Your task to perform on an android device: toggle notifications settings in the gmail app Image 0: 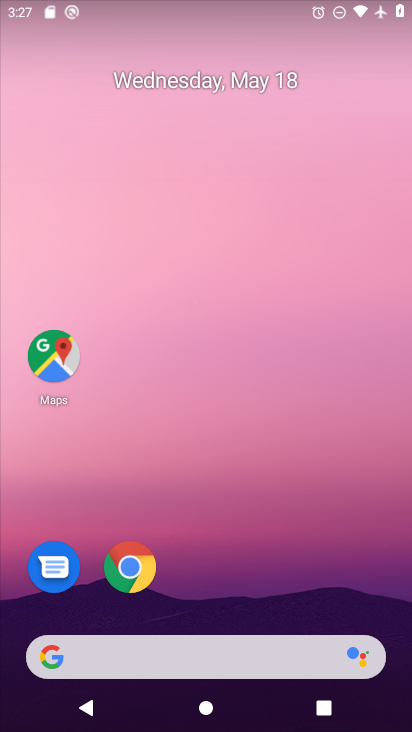
Step 0: drag from (289, 517) to (261, 115)
Your task to perform on an android device: toggle notifications settings in the gmail app Image 1: 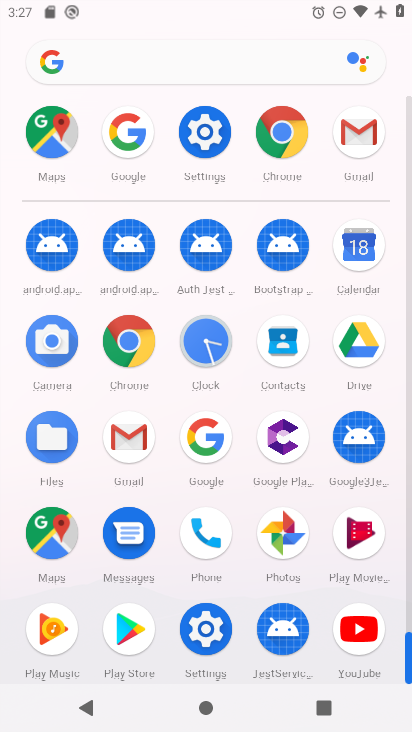
Step 1: click (351, 130)
Your task to perform on an android device: toggle notifications settings in the gmail app Image 2: 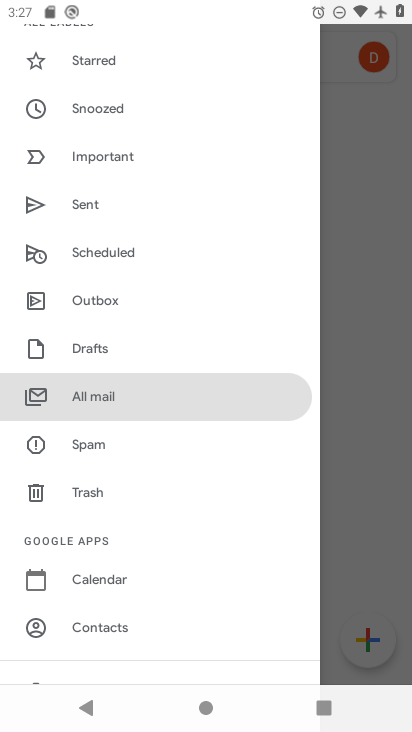
Step 2: drag from (103, 615) to (170, 310)
Your task to perform on an android device: toggle notifications settings in the gmail app Image 3: 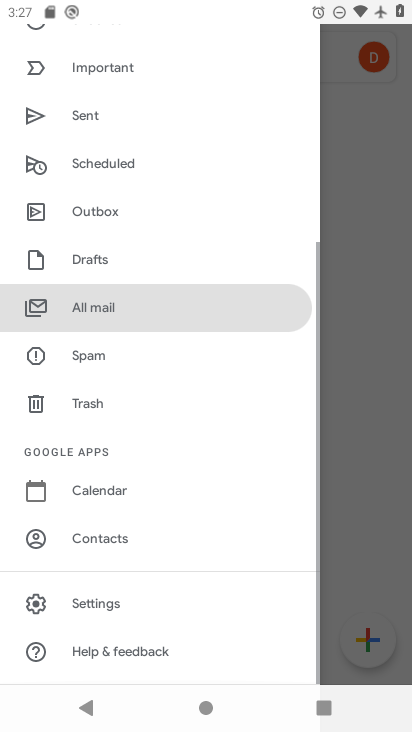
Step 3: click (107, 614)
Your task to perform on an android device: toggle notifications settings in the gmail app Image 4: 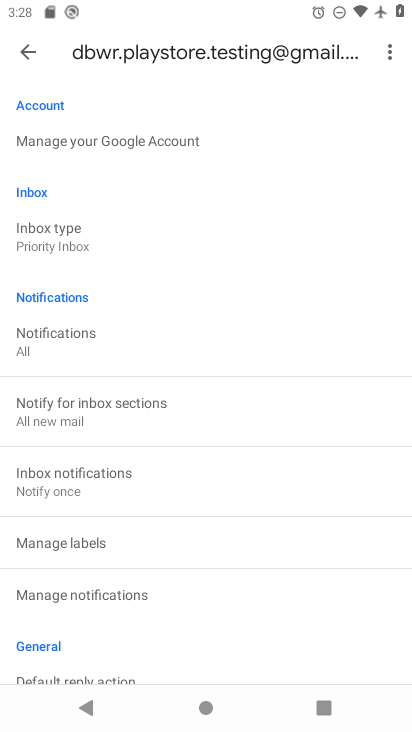
Step 4: click (119, 345)
Your task to perform on an android device: toggle notifications settings in the gmail app Image 5: 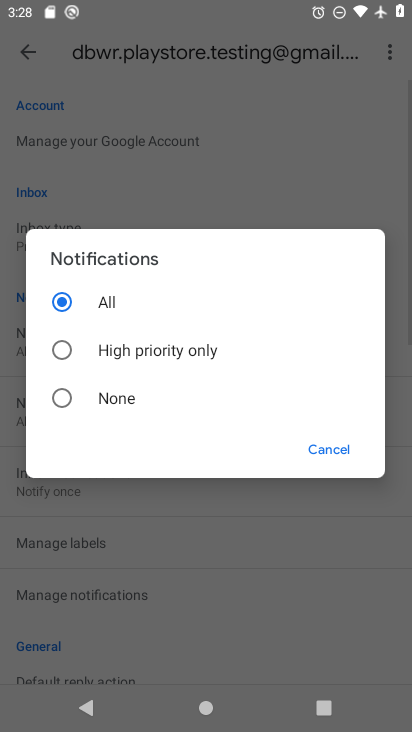
Step 5: click (108, 394)
Your task to perform on an android device: toggle notifications settings in the gmail app Image 6: 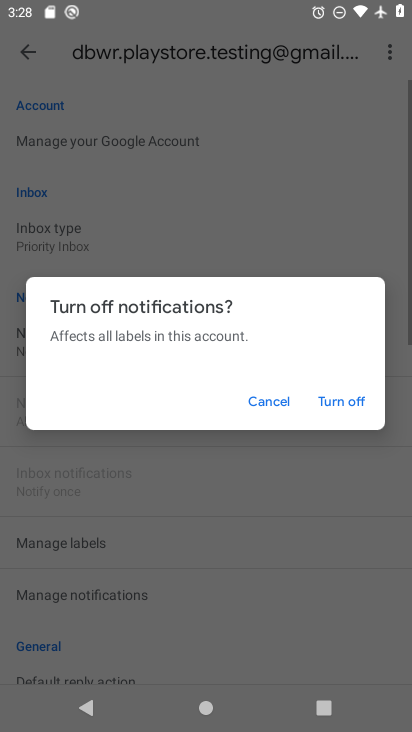
Step 6: task complete